Your task to perform on an android device: Search for the best rated phone case for the iPhone 8. Image 0: 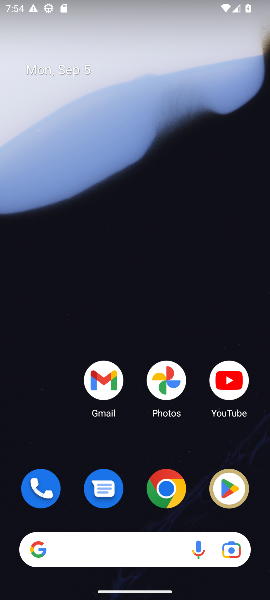
Step 0: click (175, 491)
Your task to perform on an android device: Search for the best rated phone case for the iPhone 8. Image 1: 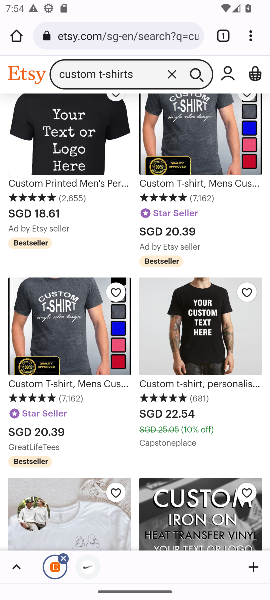
Step 1: click (147, 34)
Your task to perform on an android device: Search for the best rated phone case for the iPhone 8. Image 2: 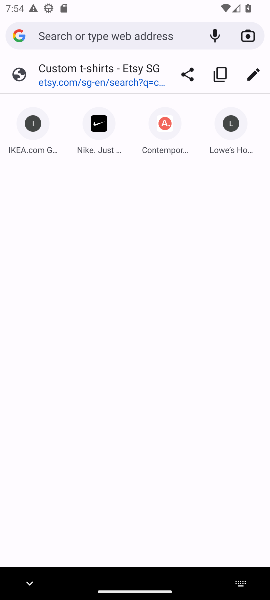
Step 2: type "best rated phone for the iphone 8"
Your task to perform on an android device: Search for the best rated phone case for the iPhone 8. Image 3: 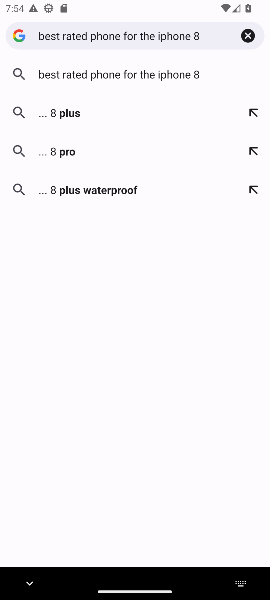
Step 3: press back button
Your task to perform on an android device: Search for the best rated phone case for the iPhone 8. Image 4: 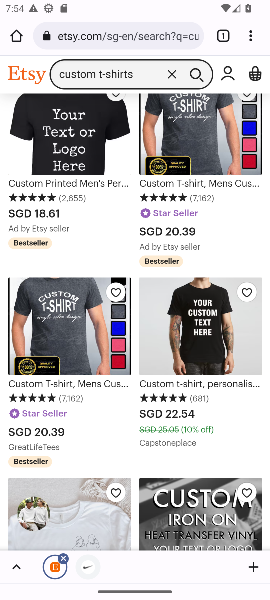
Step 4: click (141, 38)
Your task to perform on an android device: Search for the best rated phone case for the iPhone 8. Image 5: 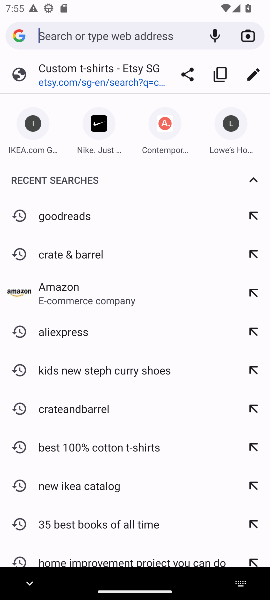
Step 5: type "best rated phone case for the iPhone 8"
Your task to perform on an android device: Search for the best rated phone case for the iPhone 8. Image 6: 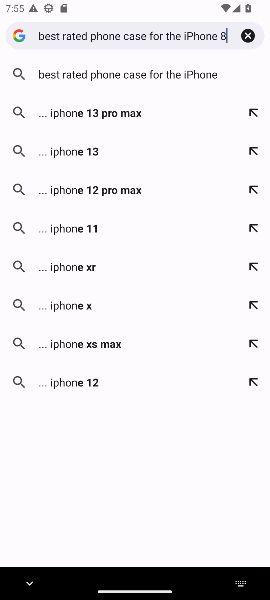
Step 6: press enter
Your task to perform on an android device: Search for the best rated phone case for the iPhone 8. Image 7: 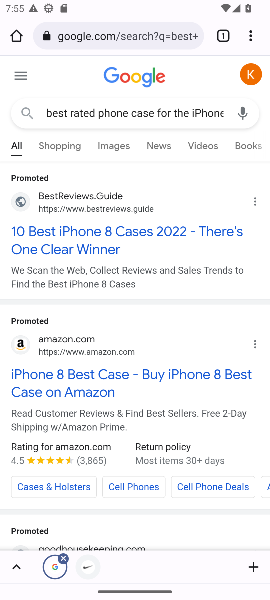
Step 7: task complete